Your task to perform on an android device: allow notifications from all sites in the chrome app Image 0: 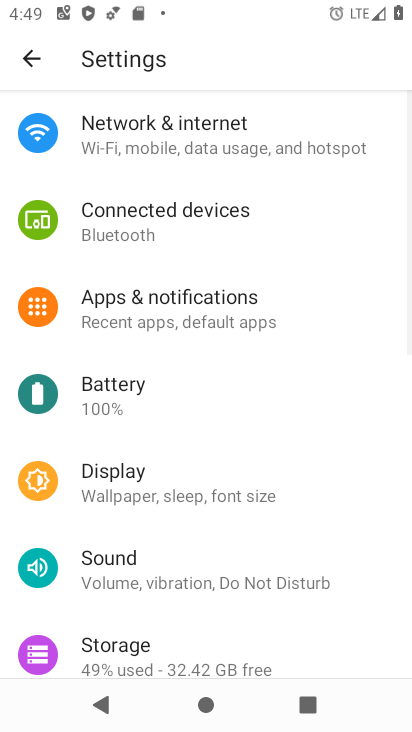
Step 0: press back button
Your task to perform on an android device: allow notifications from all sites in the chrome app Image 1: 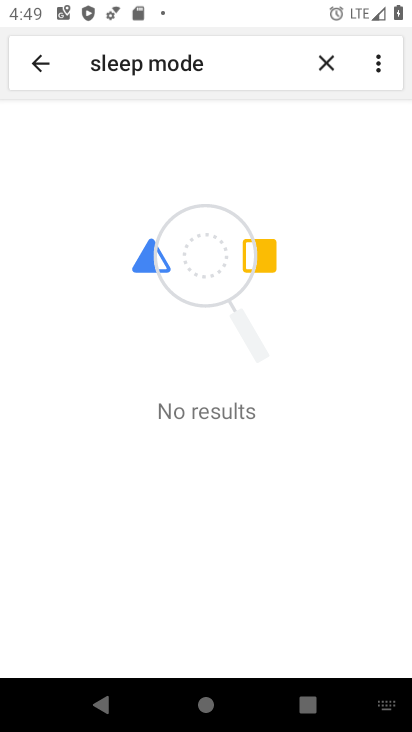
Step 1: press home button
Your task to perform on an android device: allow notifications from all sites in the chrome app Image 2: 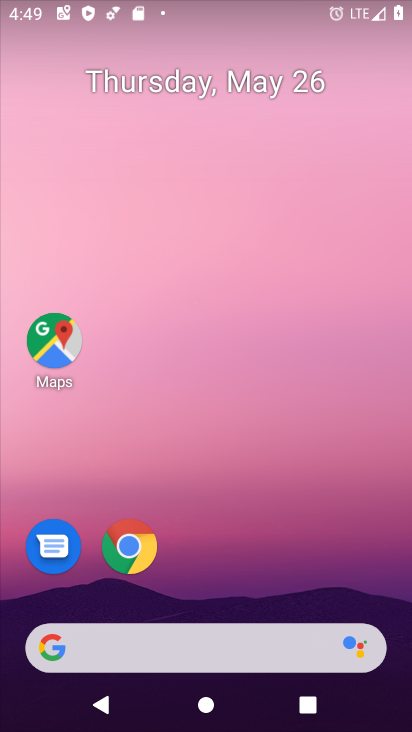
Step 2: click (125, 555)
Your task to perform on an android device: allow notifications from all sites in the chrome app Image 3: 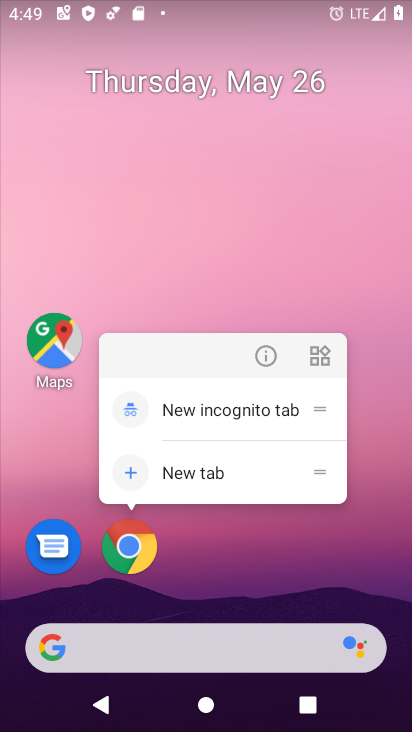
Step 3: click (125, 546)
Your task to perform on an android device: allow notifications from all sites in the chrome app Image 4: 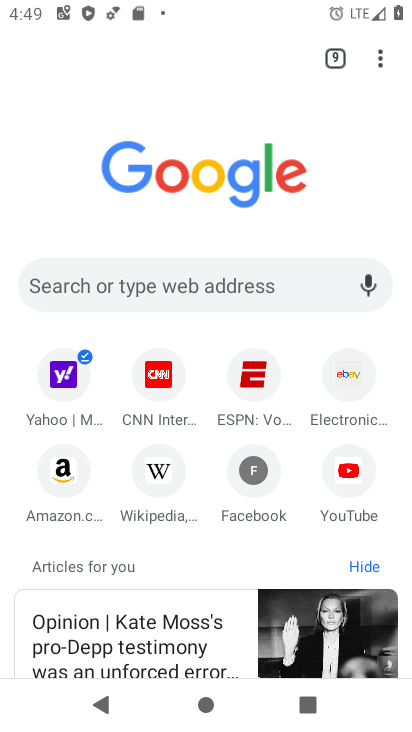
Step 4: drag from (383, 59) to (196, 496)
Your task to perform on an android device: allow notifications from all sites in the chrome app Image 5: 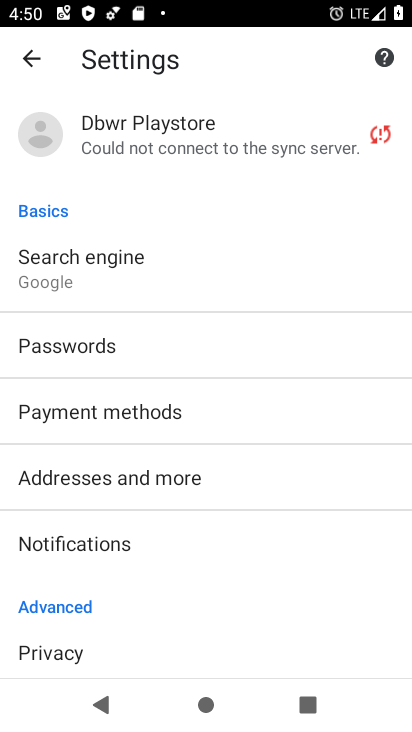
Step 5: click (83, 549)
Your task to perform on an android device: allow notifications from all sites in the chrome app Image 6: 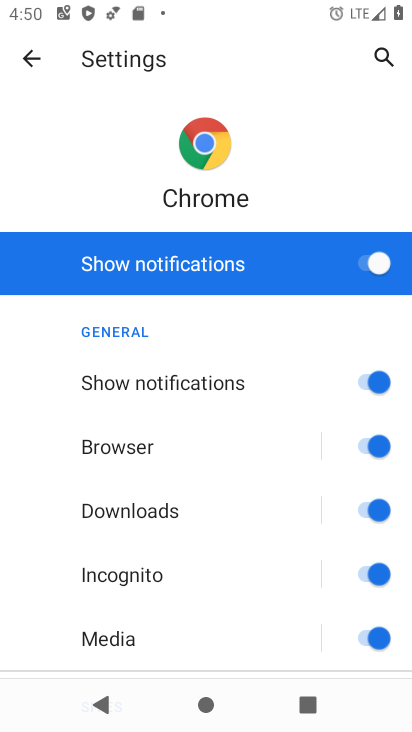
Step 6: task complete